Your task to perform on an android device: Open eBay Image 0: 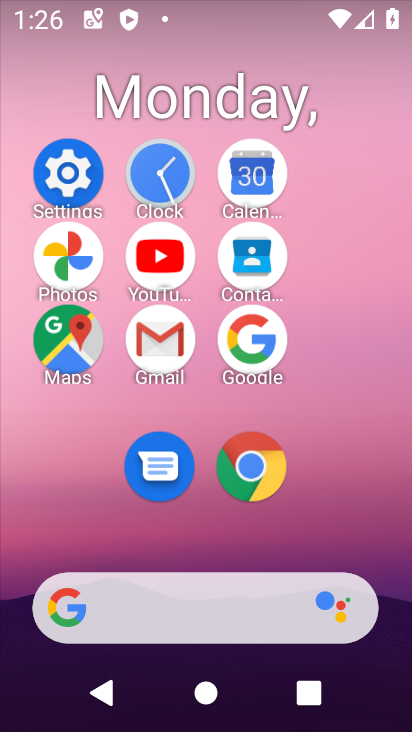
Step 0: click (258, 472)
Your task to perform on an android device: Open eBay Image 1: 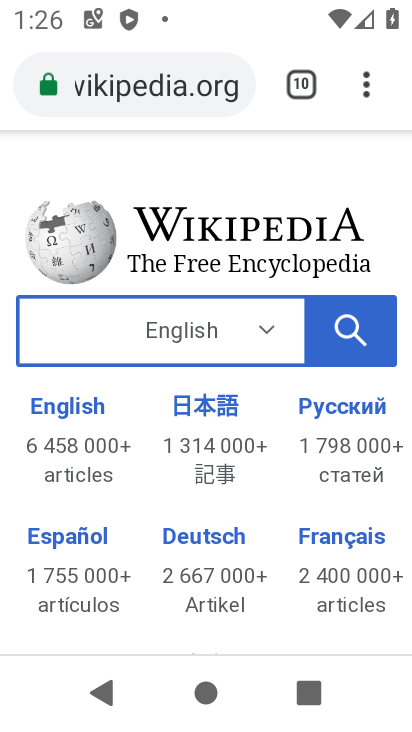
Step 1: click (311, 73)
Your task to perform on an android device: Open eBay Image 2: 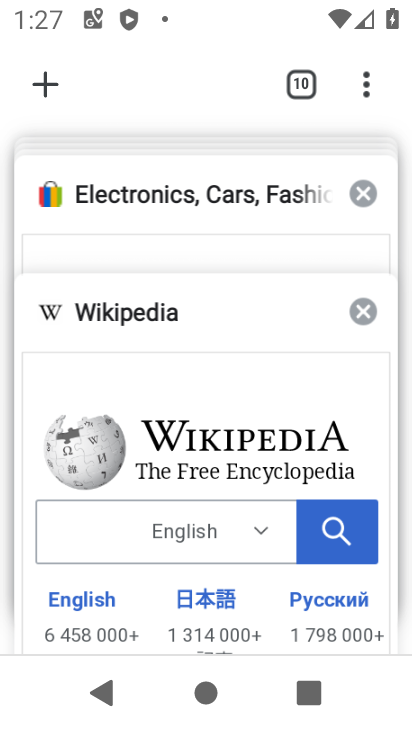
Step 2: click (134, 182)
Your task to perform on an android device: Open eBay Image 3: 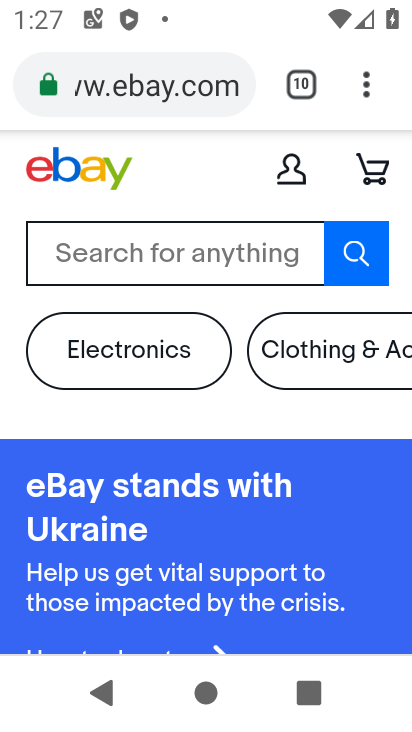
Step 3: task complete